Your task to perform on an android device: open sync settings in chrome Image 0: 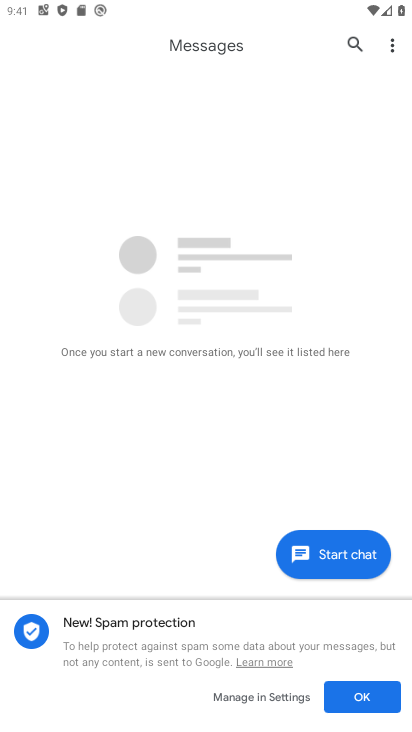
Step 0: press home button
Your task to perform on an android device: open sync settings in chrome Image 1: 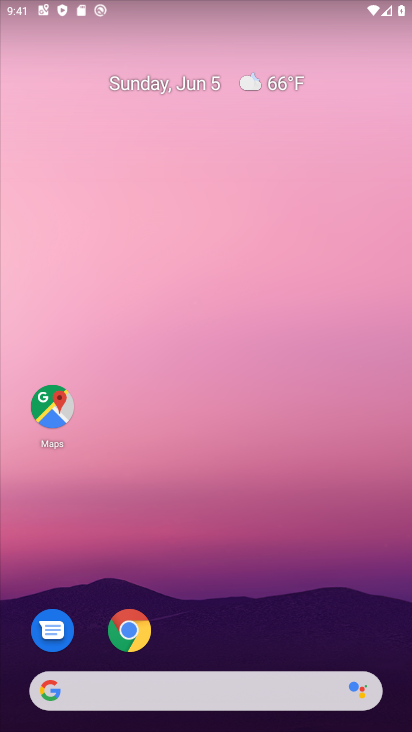
Step 1: click (132, 636)
Your task to perform on an android device: open sync settings in chrome Image 2: 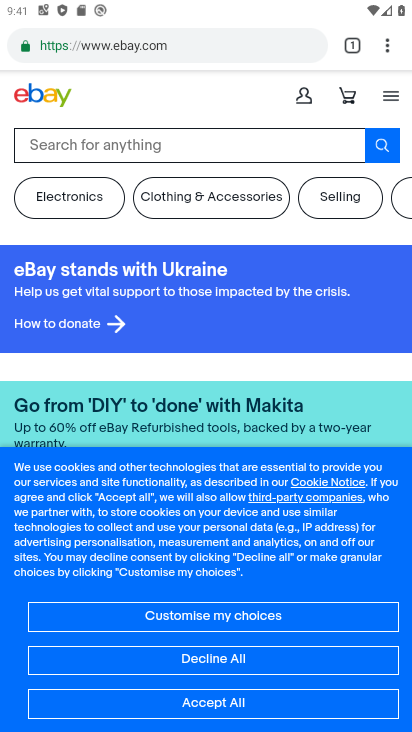
Step 2: click (385, 49)
Your task to perform on an android device: open sync settings in chrome Image 3: 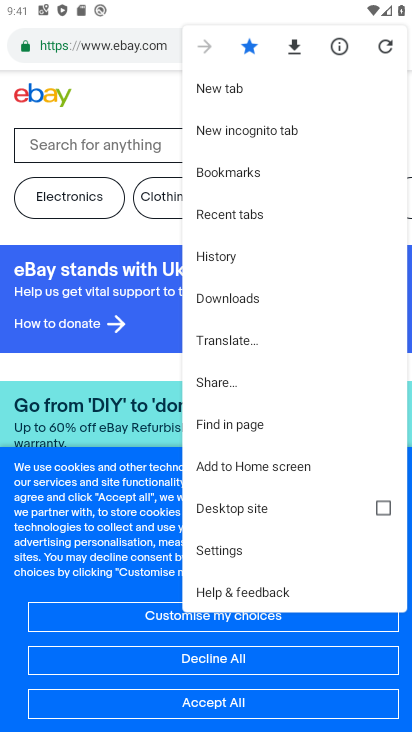
Step 3: click (224, 547)
Your task to perform on an android device: open sync settings in chrome Image 4: 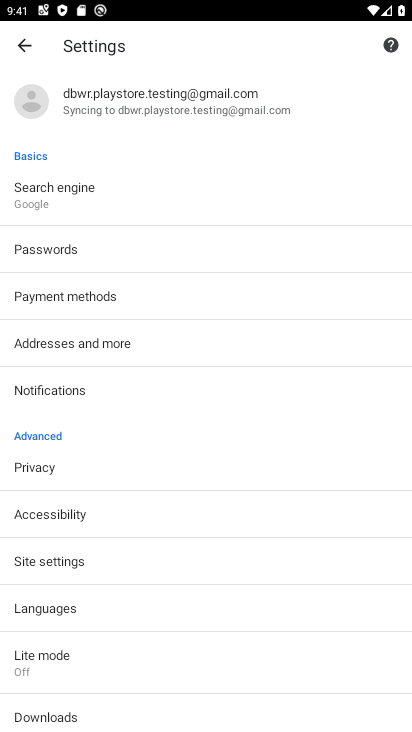
Step 4: click (63, 561)
Your task to perform on an android device: open sync settings in chrome Image 5: 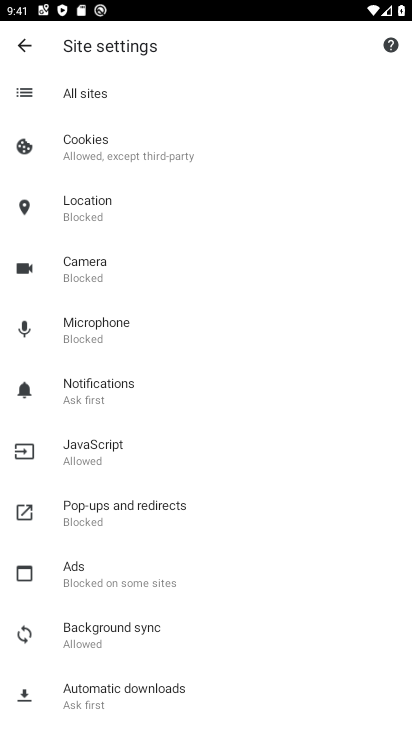
Step 5: click (81, 633)
Your task to perform on an android device: open sync settings in chrome Image 6: 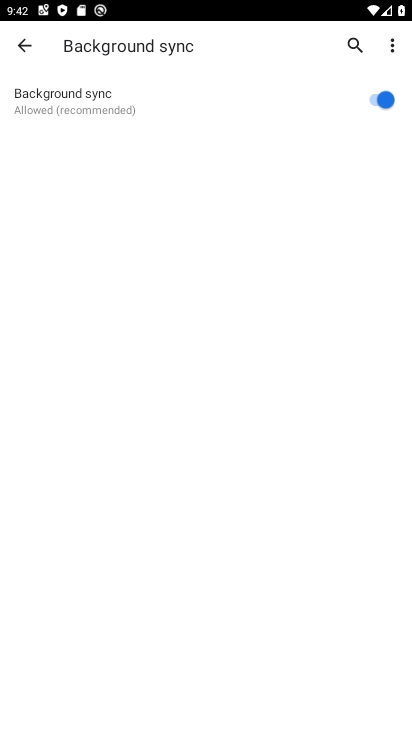
Step 6: task complete